Your task to perform on an android device: Open network settings Image 0: 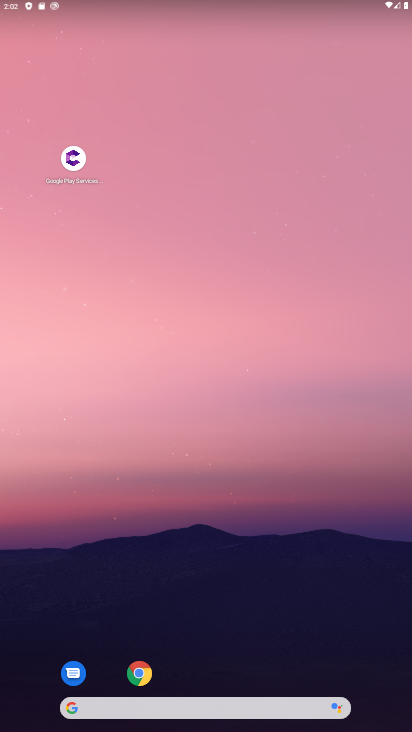
Step 0: drag from (228, 620) to (168, 3)
Your task to perform on an android device: Open network settings Image 1: 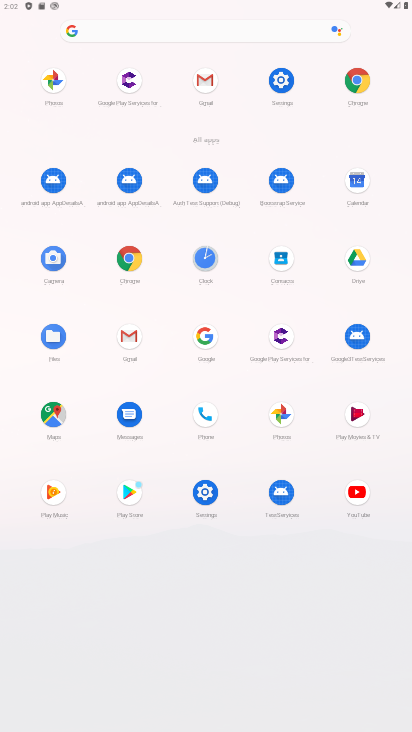
Step 1: click (279, 84)
Your task to perform on an android device: Open network settings Image 2: 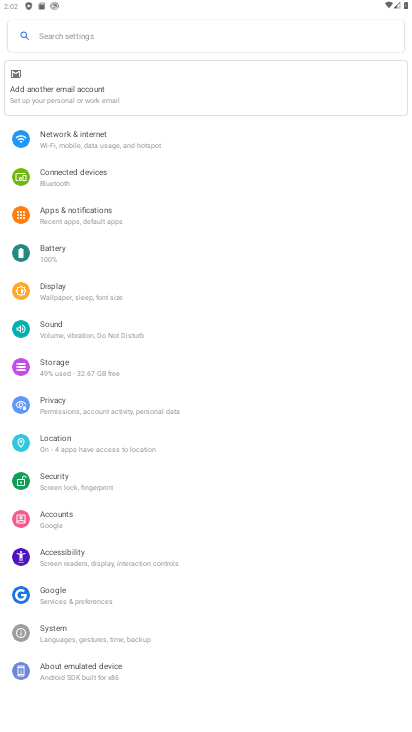
Step 2: click (64, 135)
Your task to perform on an android device: Open network settings Image 3: 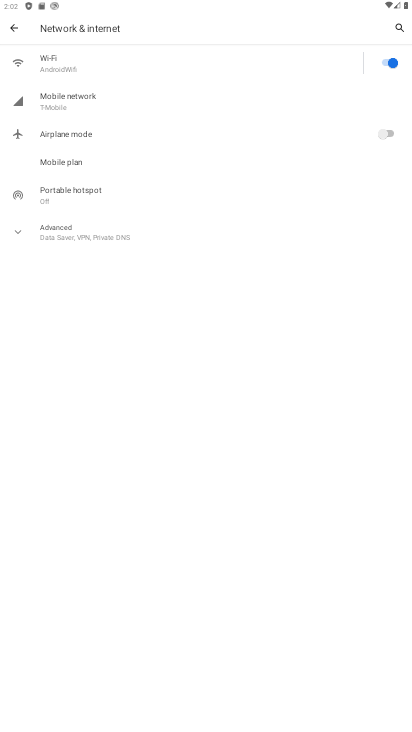
Step 3: task complete